Your task to perform on an android device: Empty the shopping cart on target. Add usb-c to usb-a to the cart on target Image 0: 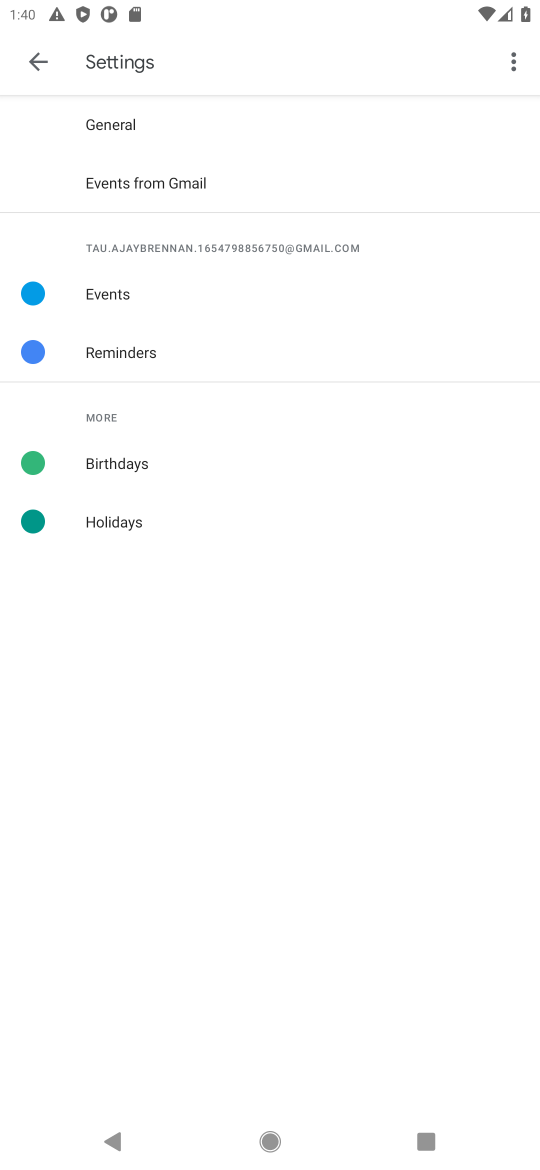
Step 0: press home button
Your task to perform on an android device: Empty the shopping cart on target. Add usb-c to usb-a to the cart on target Image 1: 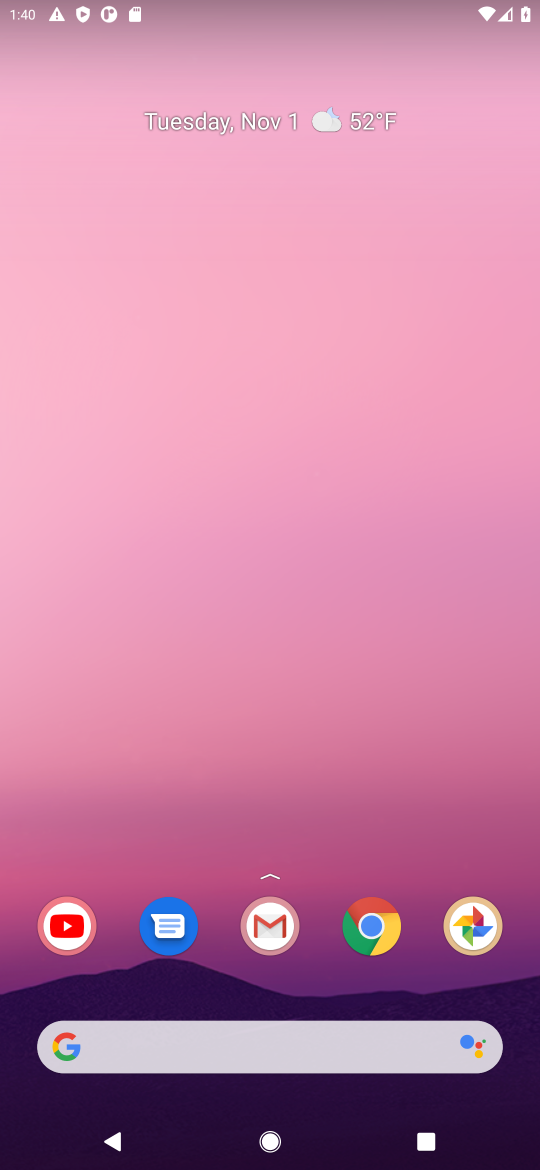
Step 1: click (375, 927)
Your task to perform on an android device: Empty the shopping cart on target. Add usb-c to usb-a to the cart on target Image 2: 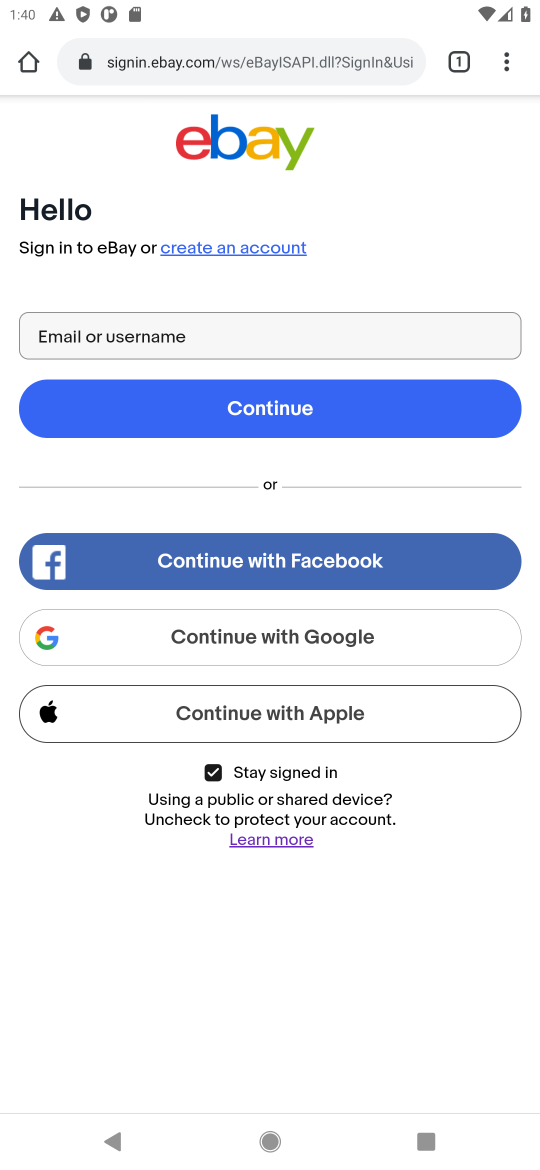
Step 2: click (144, 66)
Your task to perform on an android device: Empty the shopping cart on target. Add usb-c to usb-a to the cart on target Image 3: 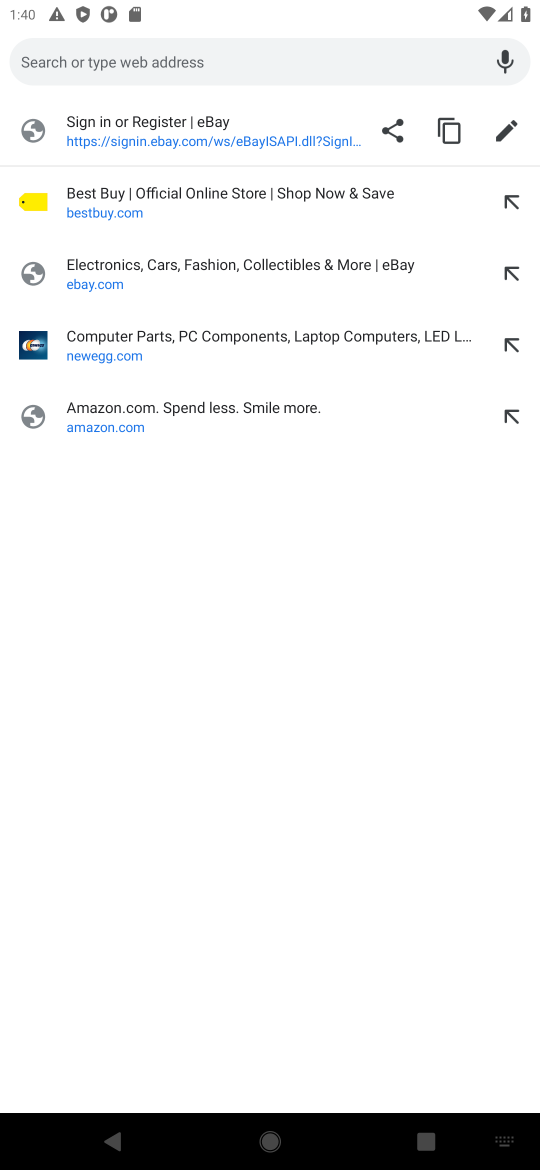
Step 3: type "target"
Your task to perform on an android device: Empty the shopping cart on target. Add usb-c to usb-a to the cart on target Image 4: 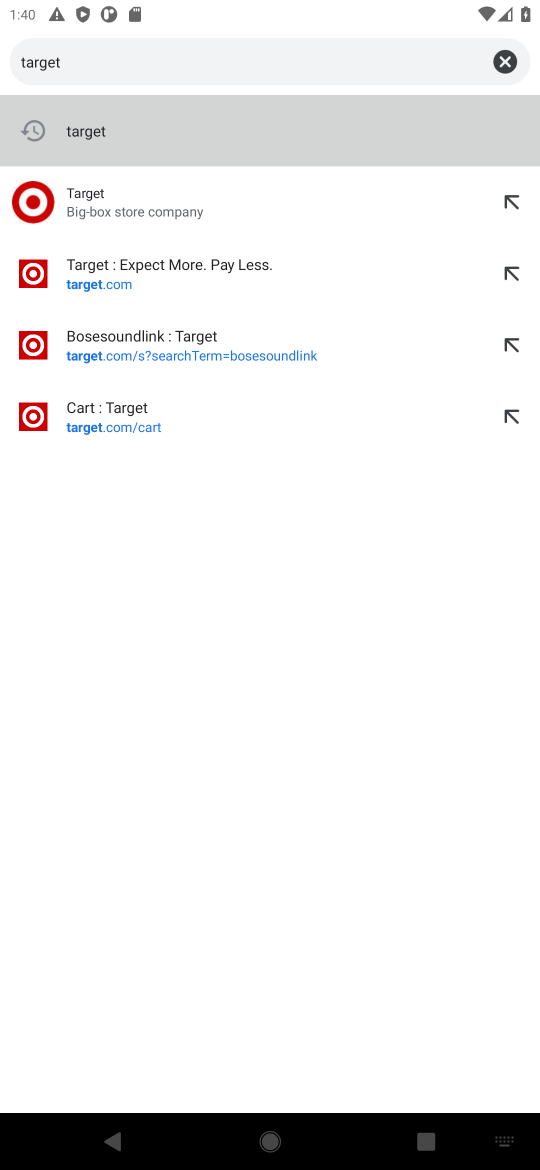
Step 4: click (112, 207)
Your task to perform on an android device: Empty the shopping cart on target. Add usb-c to usb-a to the cart on target Image 5: 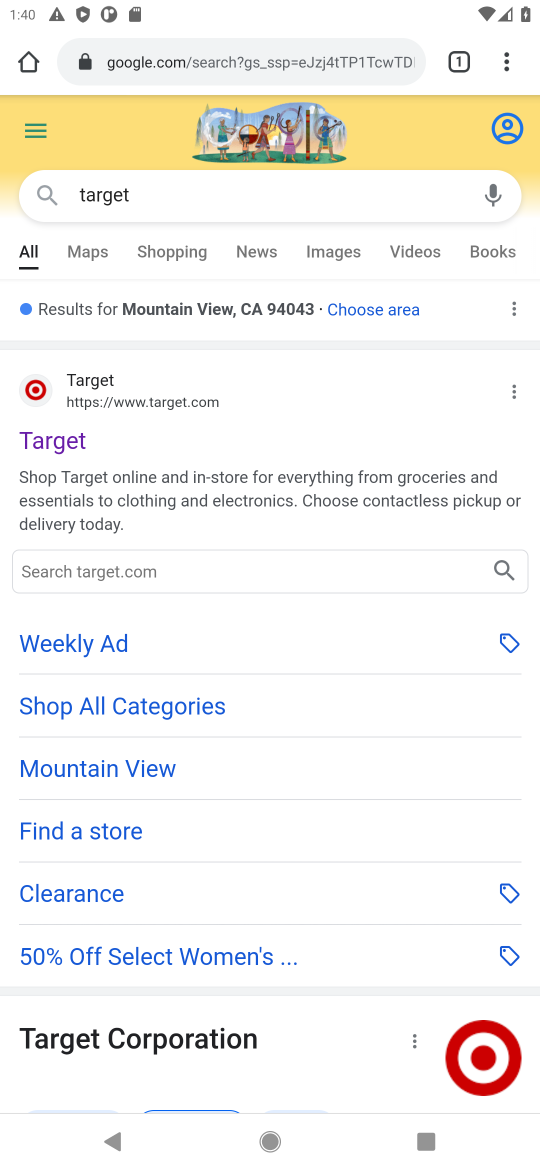
Step 5: click (43, 446)
Your task to perform on an android device: Empty the shopping cart on target. Add usb-c to usb-a to the cart on target Image 6: 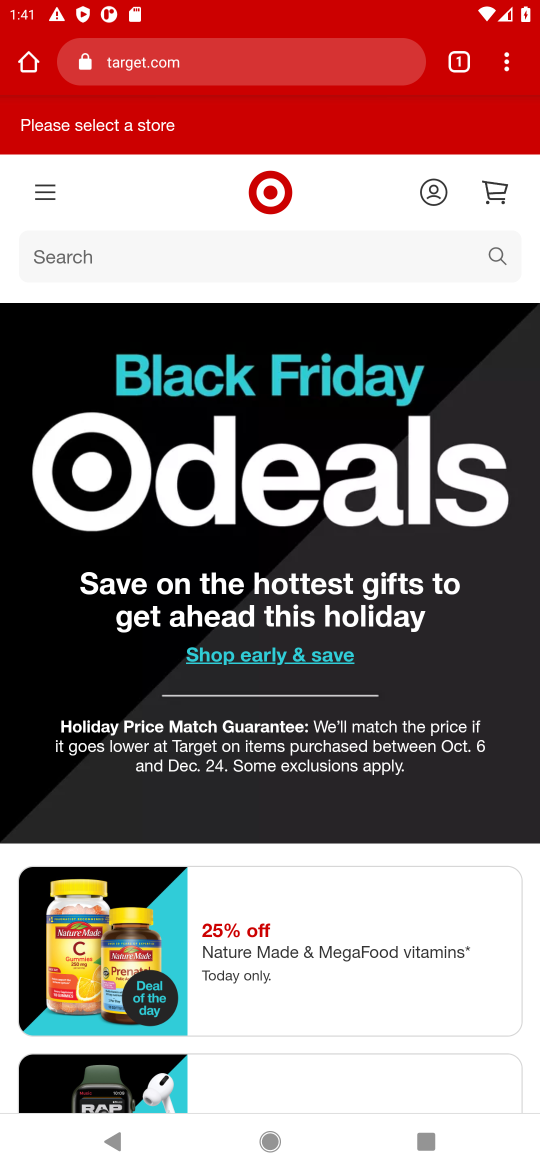
Step 6: click (494, 192)
Your task to perform on an android device: Empty the shopping cart on target. Add usb-c to usb-a to the cart on target Image 7: 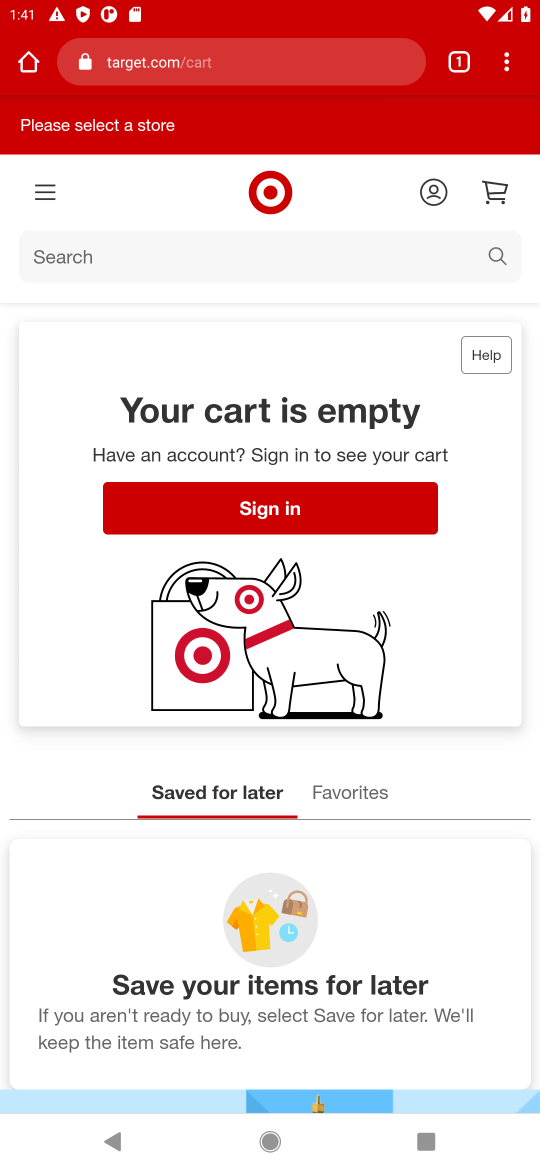
Step 7: click (420, 261)
Your task to perform on an android device: Empty the shopping cart on target. Add usb-c to usb-a to the cart on target Image 8: 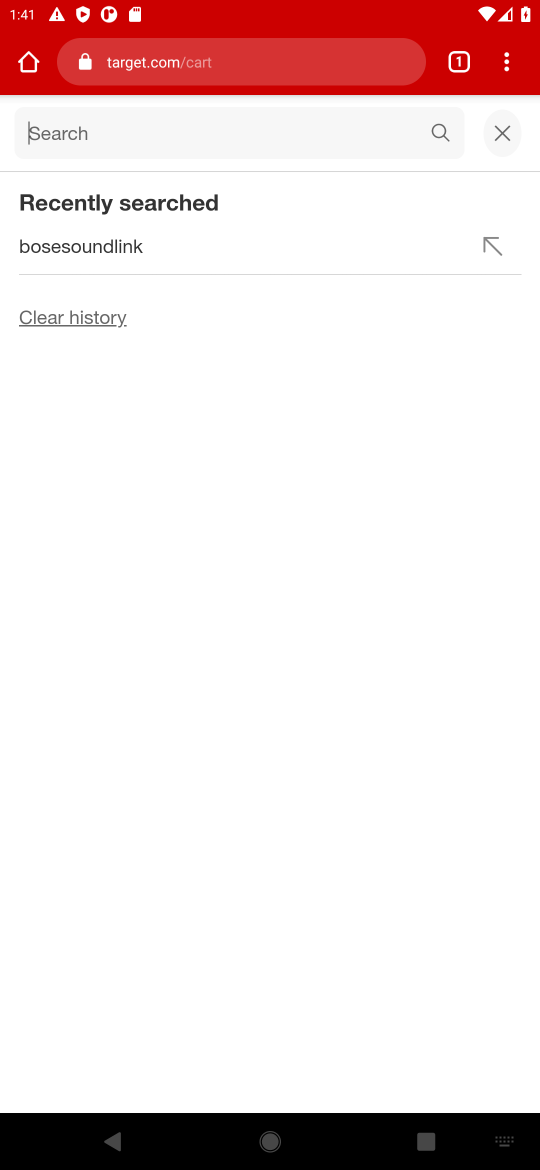
Step 8: click (329, 125)
Your task to perform on an android device: Empty the shopping cart on target. Add usb-c to usb-a to the cart on target Image 9: 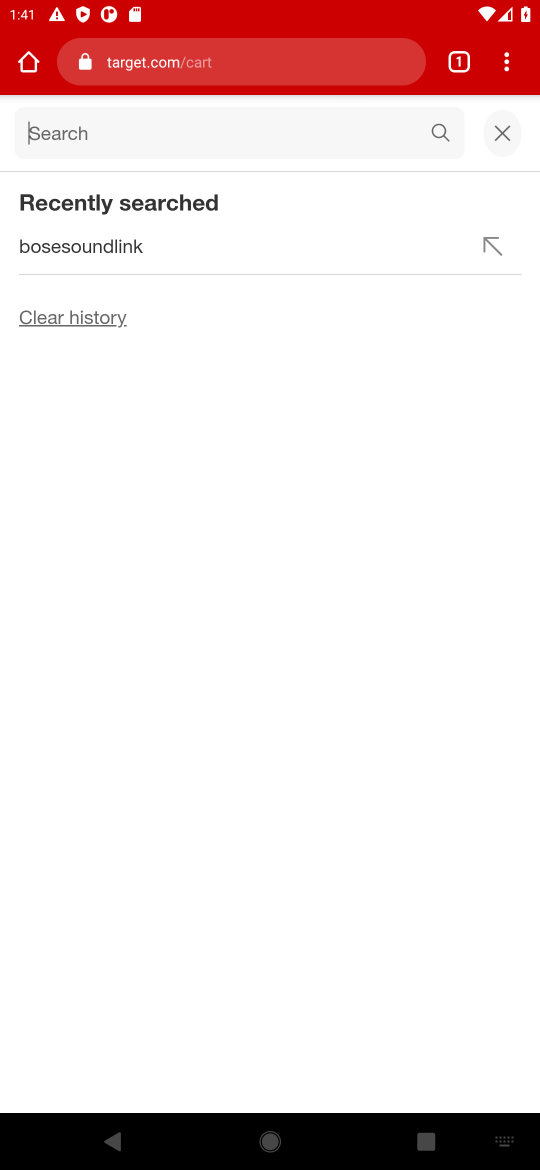
Step 9: type "Add usb-c to usb-a"
Your task to perform on an android device: Empty the shopping cart on target. Add usb-c to usb-a to the cart on target Image 10: 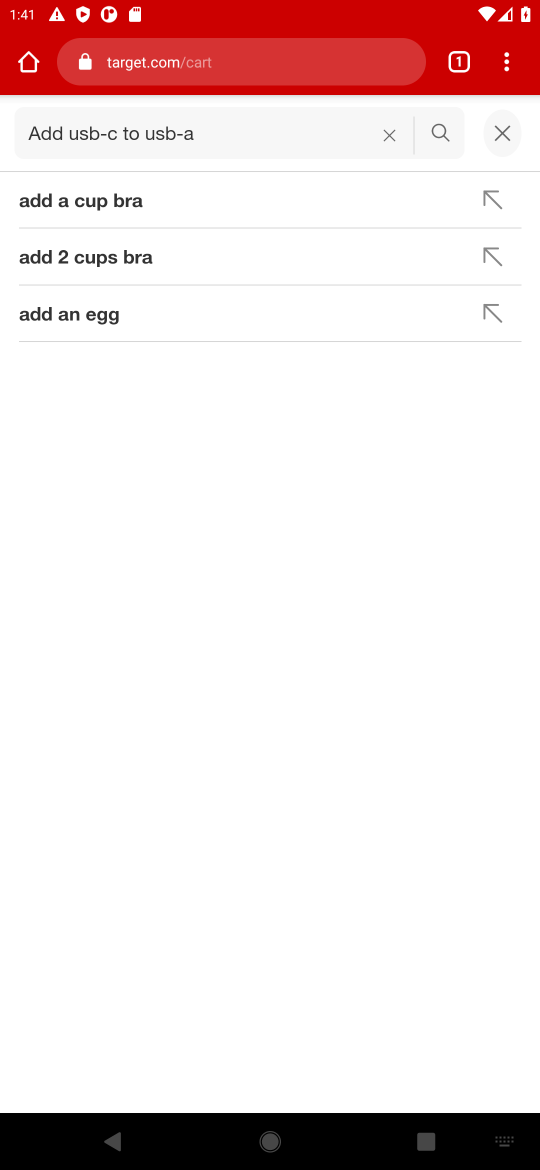
Step 10: press enter
Your task to perform on an android device: Empty the shopping cart on target. Add usb-c to usb-a to the cart on target Image 11: 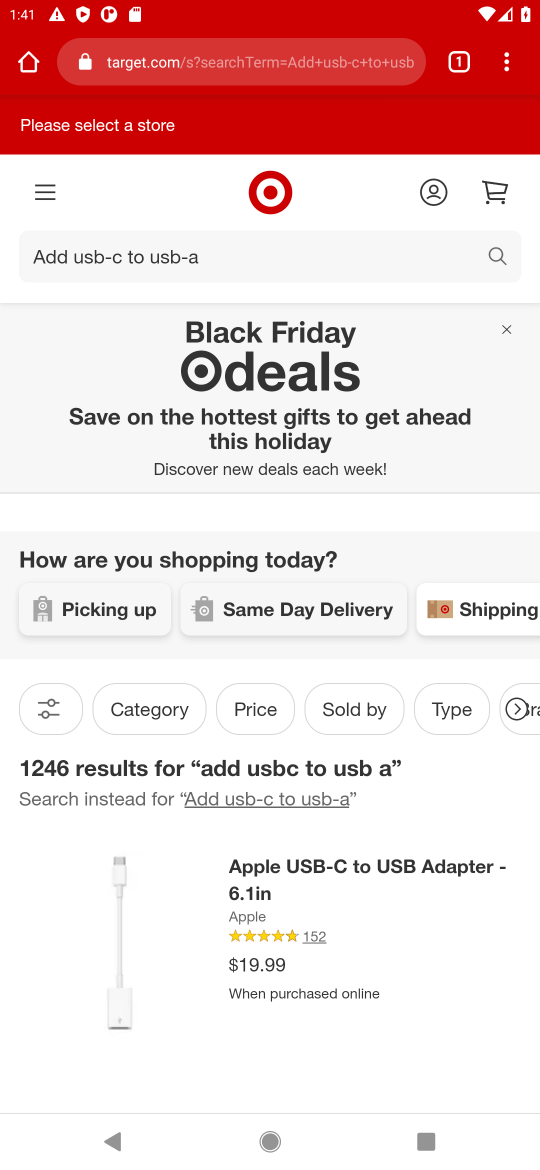
Step 11: drag from (424, 770) to (384, 458)
Your task to perform on an android device: Empty the shopping cart on target. Add usb-c to usb-a to the cart on target Image 12: 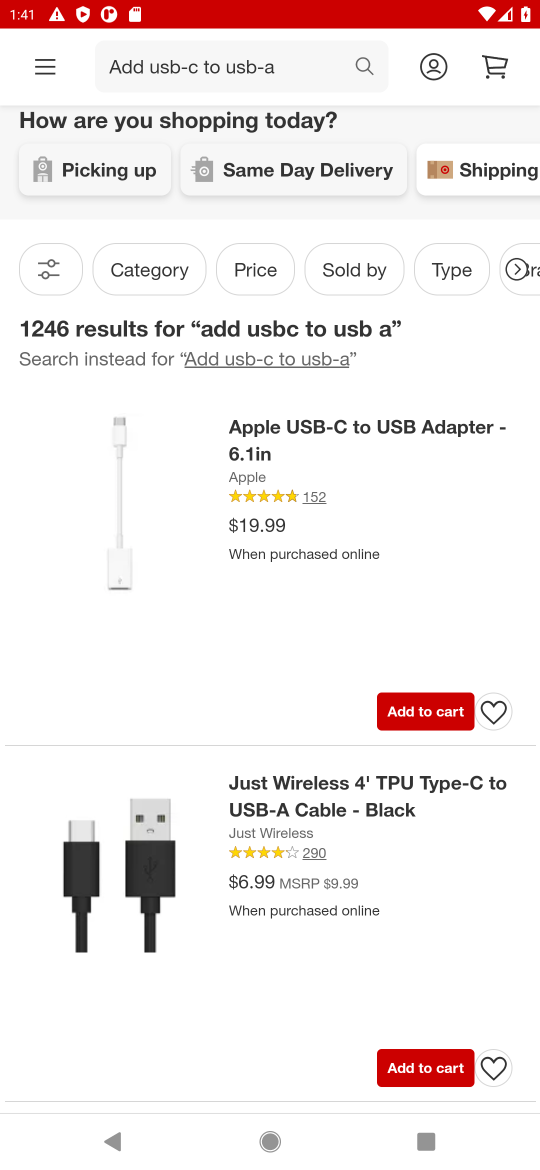
Step 12: click (382, 440)
Your task to perform on an android device: Empty the shopping cart on target. Add usb-c to usb-a to the cart on target Image 13: 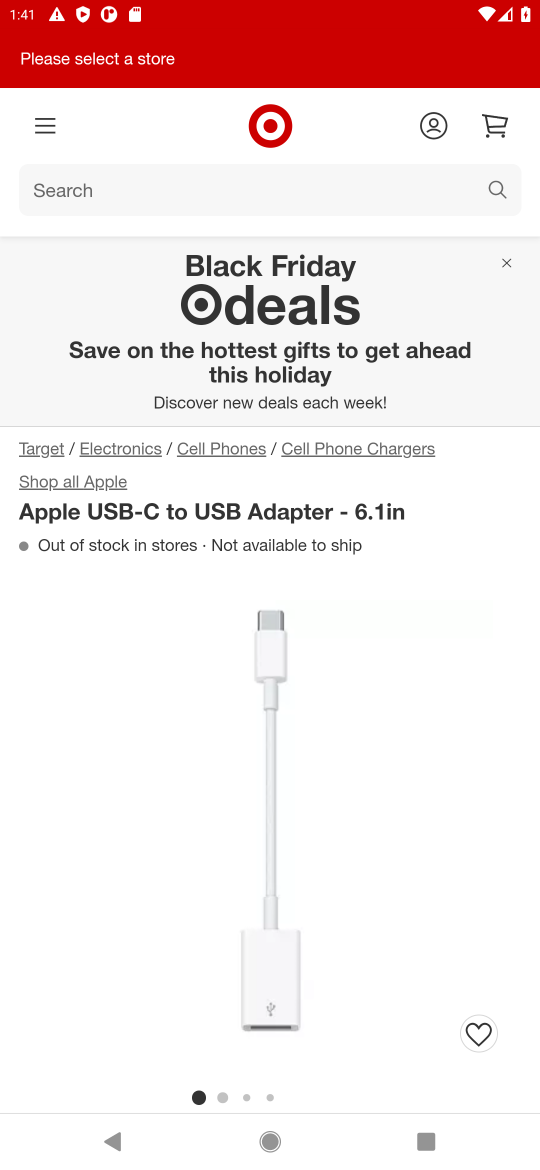
Step 13: drag from (456, 899) to (264, 454)
Your task to perform on an android device: Empty the shopping cart on target. Add usb-c to usb-a to the cart on target Image 14: 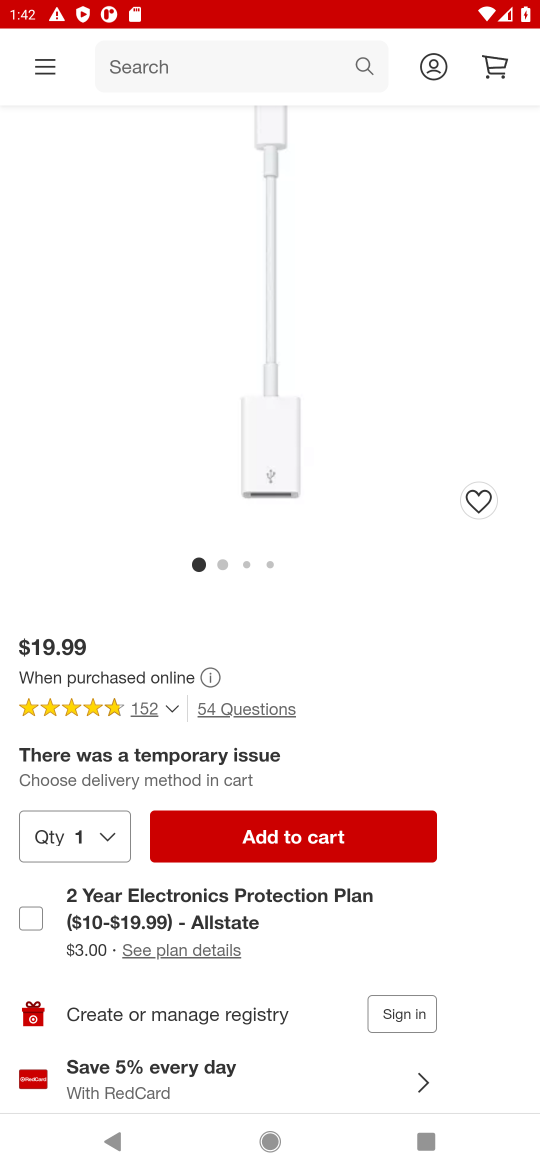
Step 14: click (286, 838)
Your task to perform on an android device: Empty the shopping cart on target. Add usb-c to usb-a to the cart on target Image 15: 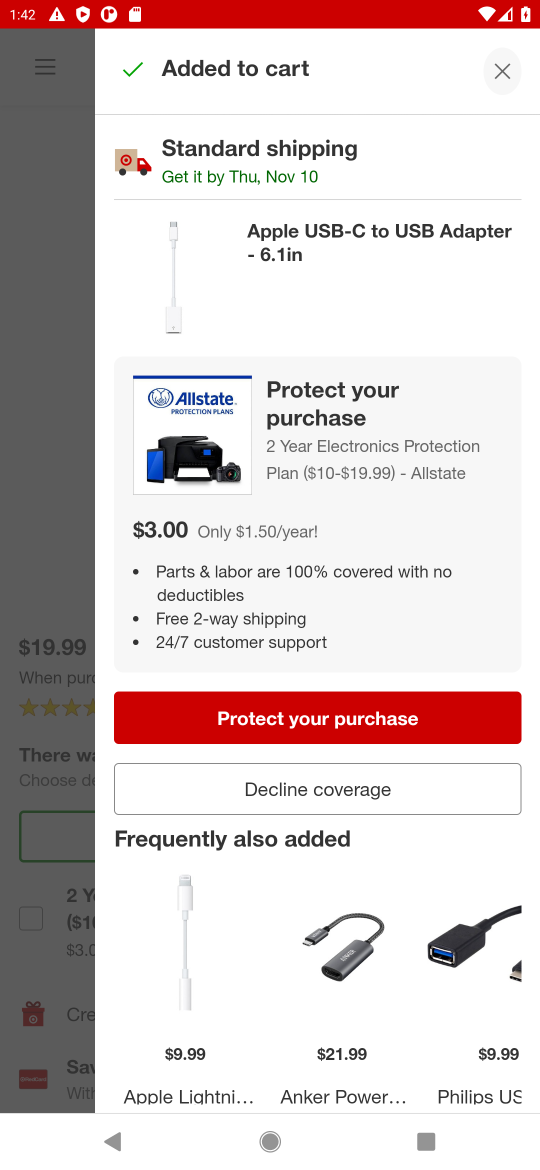
Step 15: task complete